Your task to perform on an android device: Show me the alarms in the clock app Image 0: 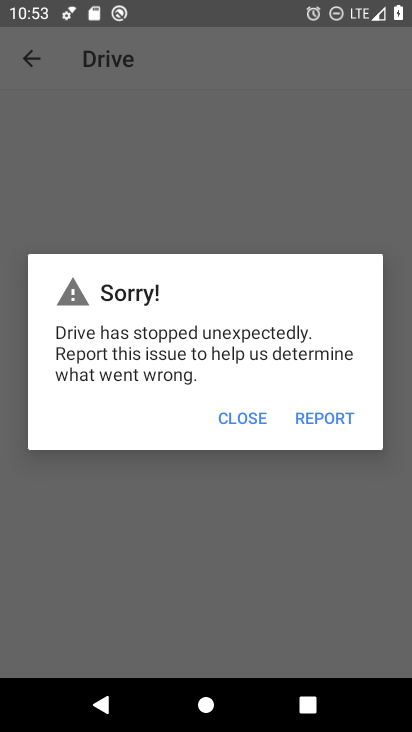
Step 0: press home button
Your task to perform on an android device: Show me the alarms in the clock app Image 1: 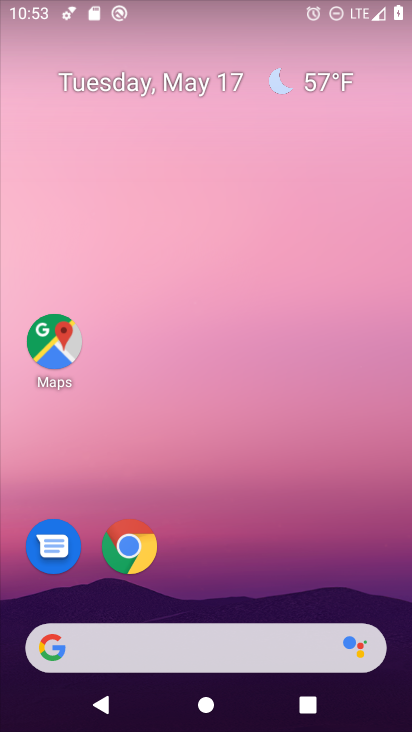
Step 1: drag from (249, 600) to (274, 14)
Your task to perform on an android device: Show me the alarms in the clock app Image 2: 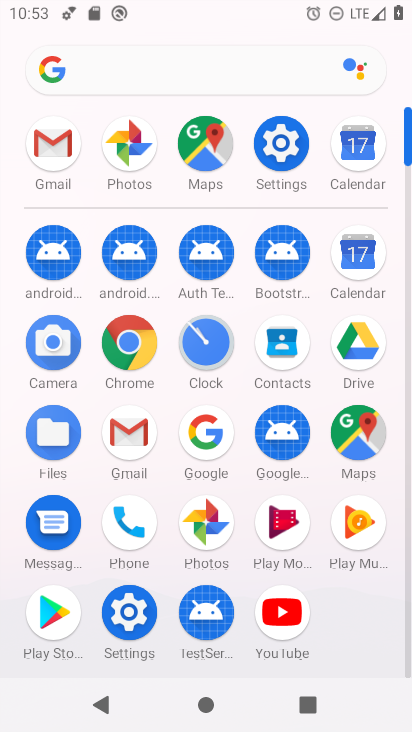
Step 2: click (198, 353)
Your task to perform on an android device: Show me the alarms in the clock app Image 3: 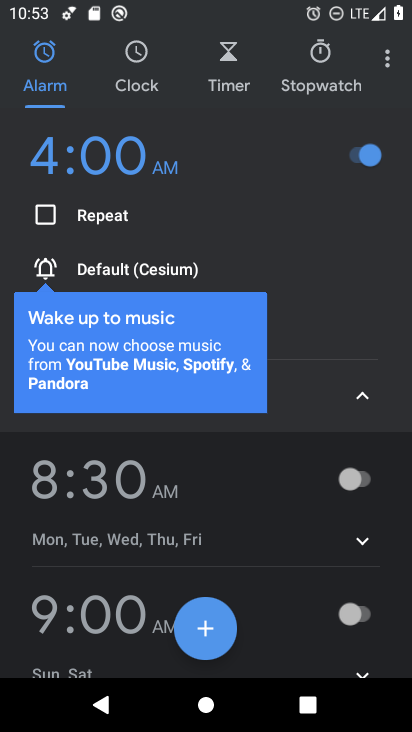
Step 3: task complete